Your task to perform on an android device: Open Youtube and go to "Your channel" Image 0: 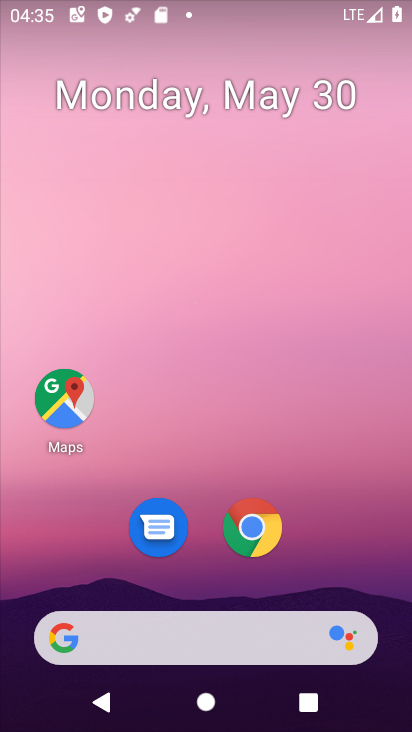
Step 0: drag from (233, 723) to (275, 9)
Your task to perform on an android device: Open Youtube and go to "Your channel" Image 1: 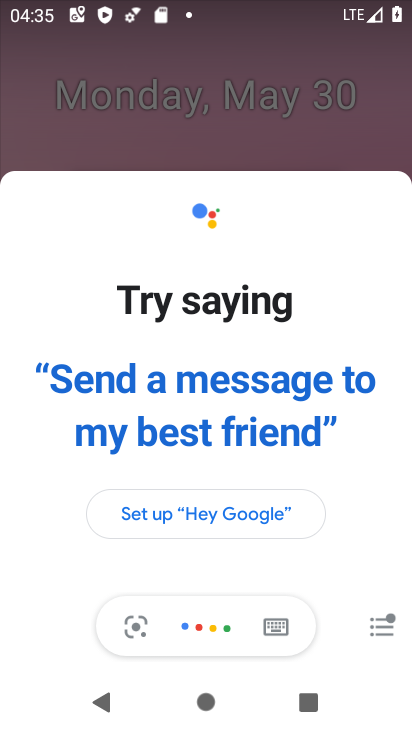
Step 1: press home button
Your task to perform on an android device: Open Youtube and go to "Your channel" Image 2: 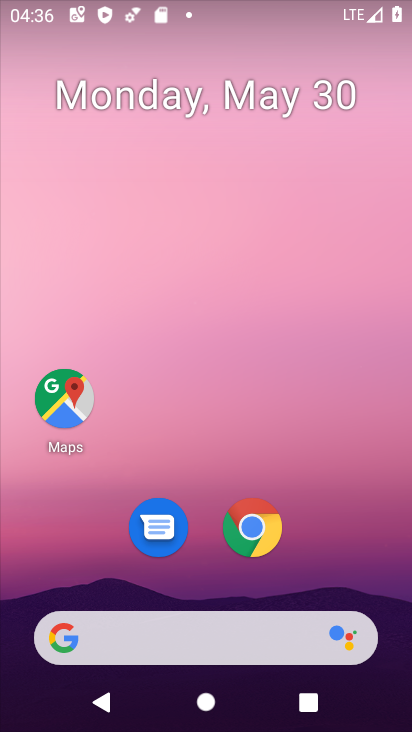
Step 2: drag from (236, 727) to (241, 6)
Your task to perform on an android device: Open Youtube and go to "Your channel" Image 3: 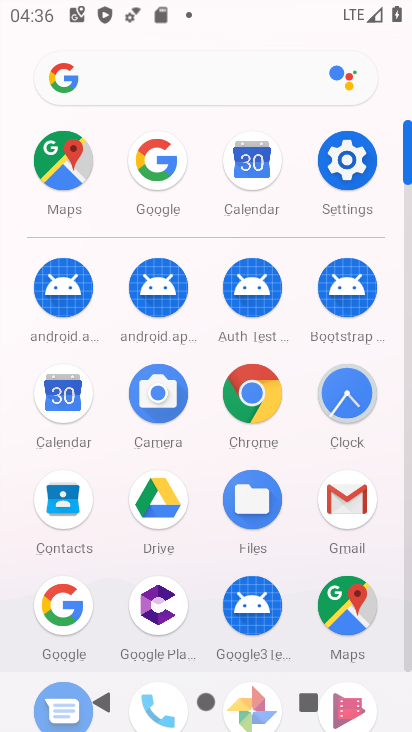
Step 3: drag from (298, 505) to (272, 154)
Your task to perform on an android device: Open Youtube and go to "Your channel" Image 4: 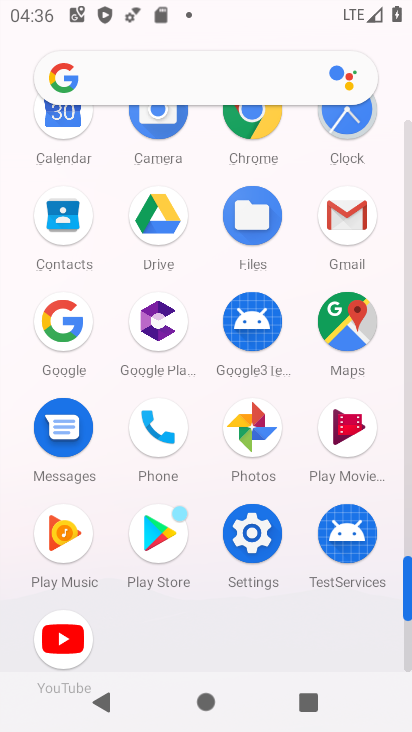
Step 4: drag from (291, 530) to (276, 132)
Your task to perform on an android device: Open Youtube and go to "Your channel" Image 5: 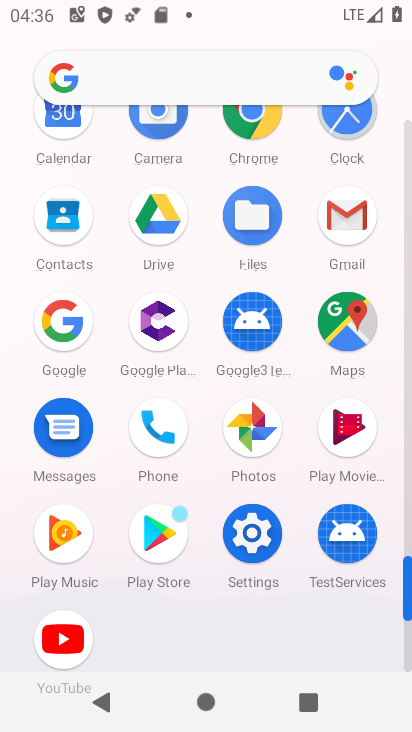
Step 5: click (65, 641)
Your task to perform on an android device: Open Youtube and go to "Your channel" Image 6: 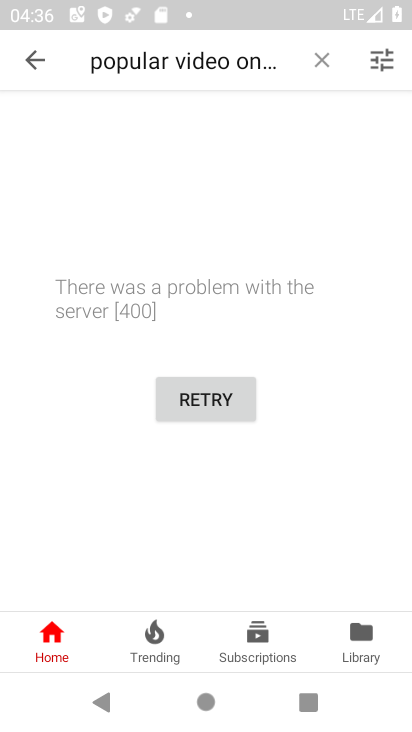
Step 6: click (356, 641)
Your task to perform on an android device: Open Youtube and go to "Your channel" Image 7: 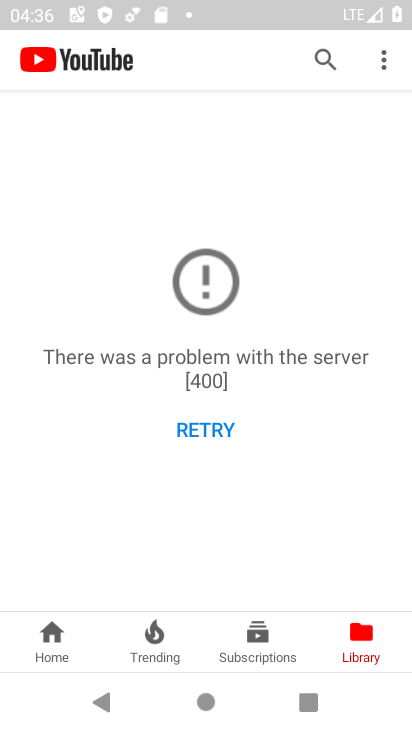
Step 7: click (46, 618)
Your task to perform on an android device: Open Youtube and go to "Your channel" Image 8: 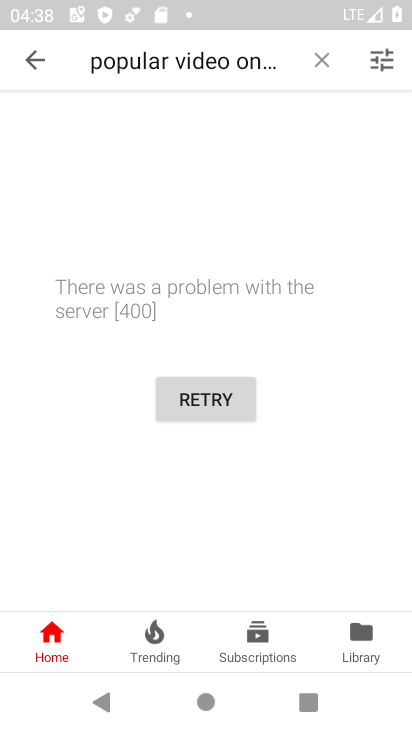
Step 8: task complete